Your task to perform on an android device: Open Google Maps Image 0: 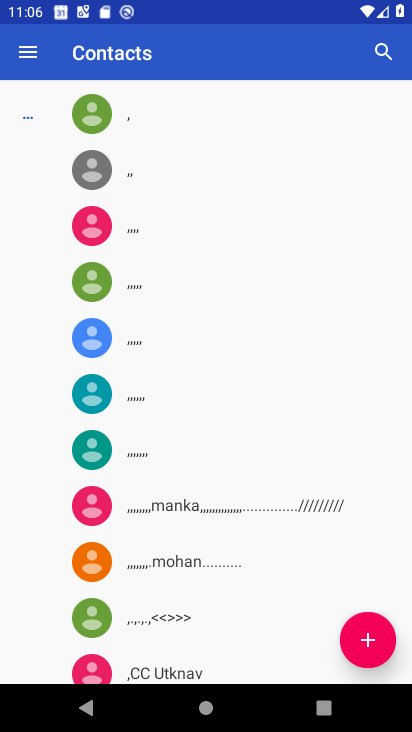
Step 0: press home button
Your task to perform on an android device: Open Google Maps Image 1: 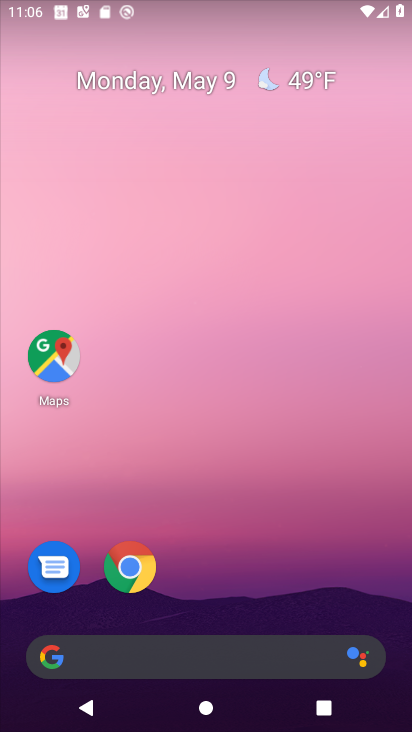
Step 1: click (62, 350)
Your task to perform on an android device: Open Google Maps Image 2: 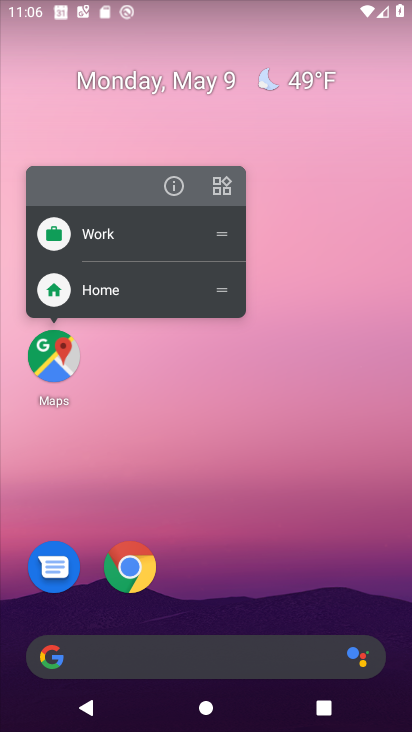
Step 2: click (62, 359)
Your task to perform on an android device: Open Google Maps Image 3: 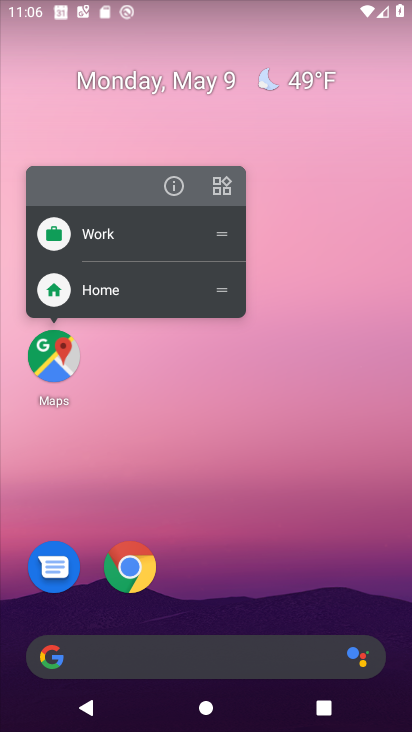
Step 3: click (54, 371)
Your task to perform on an android device: Open Google Maps Image 4: 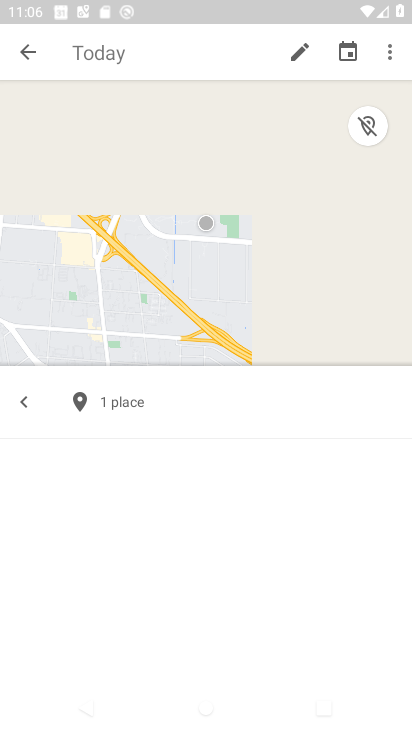
Step 4: click (19, 48)
Your task to perform on an android device: Open Google Maps Image 5: 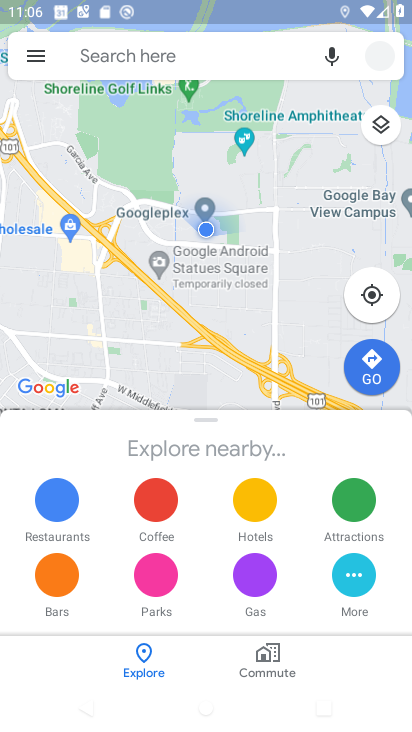
Step 5: task complete